Your task to perform on an android device: open sync settings in chrome Image 0: 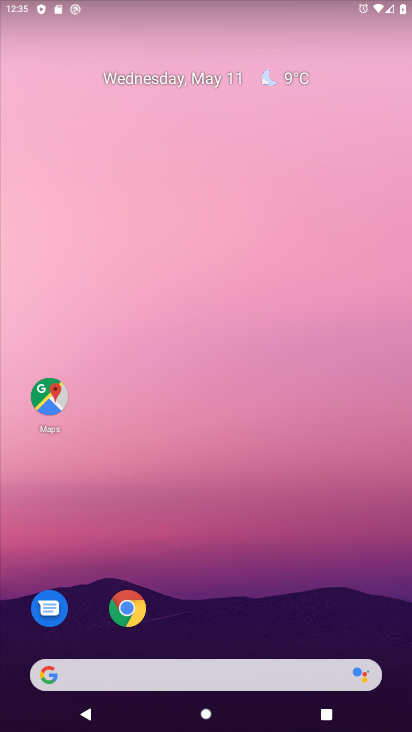
Step 0: drag from (311, 575) to (254, 276)
Your task to perform on an android device: open sync settings in chrome Image 1: 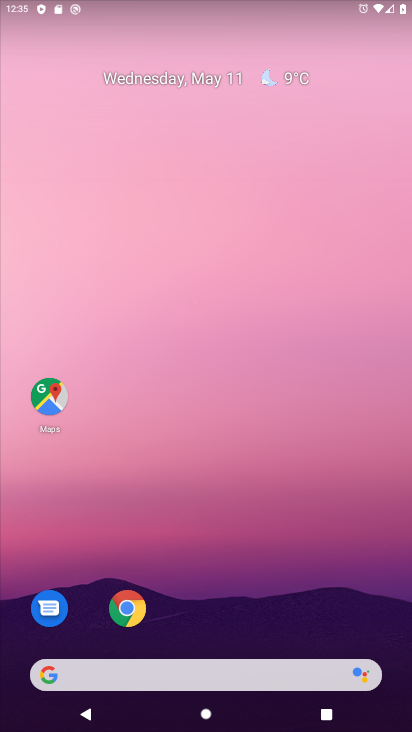
Step 1: drag from (214, 654) to (204, 532)
Your task to perform on an android device: open sync settings in chrome Image 2: 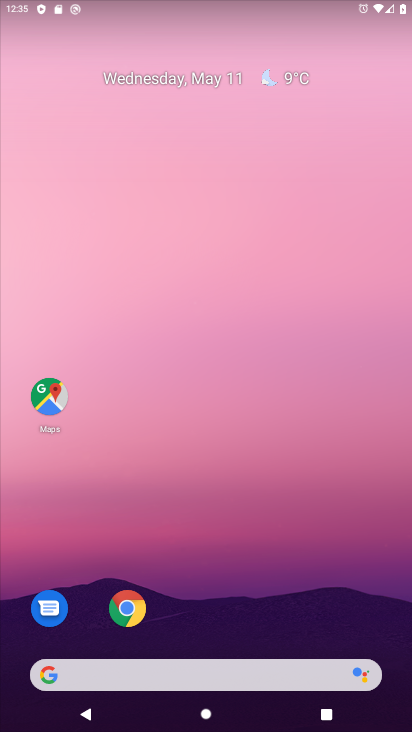
Step 2: drag from (225, 634) to (172, 298)
Your task to perform on an android device: open sync settings in chrome Image 3: 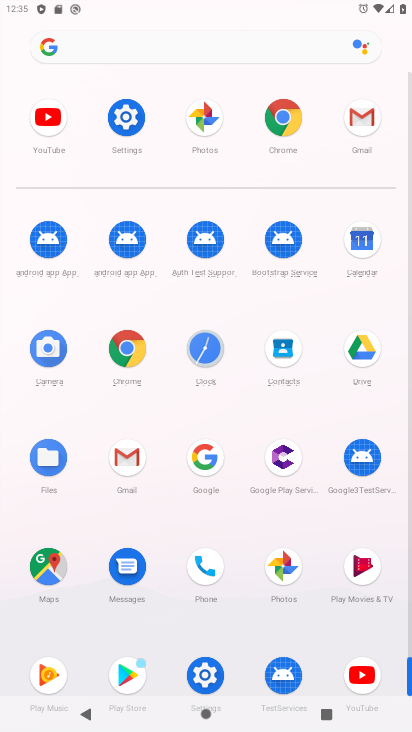
Step 3: click (287, 138)
Your task to perform on an android device: open sync settings in chrome Image 4: 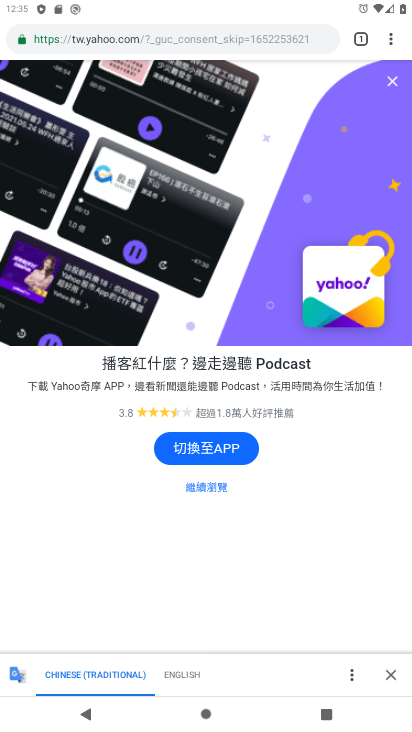
Step 4: click (390, 37)
Your task to perform on an android device: open sync settings in chrome Image 5: 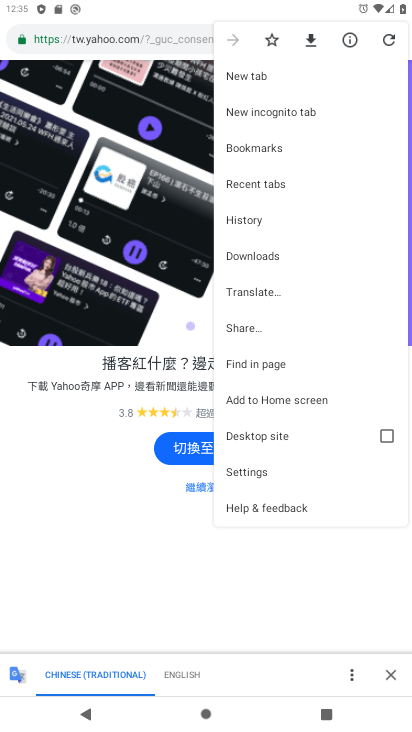
Step 5: click (284, 472)
Your task to perform on an android device: open sync settings in chrome Image 6: 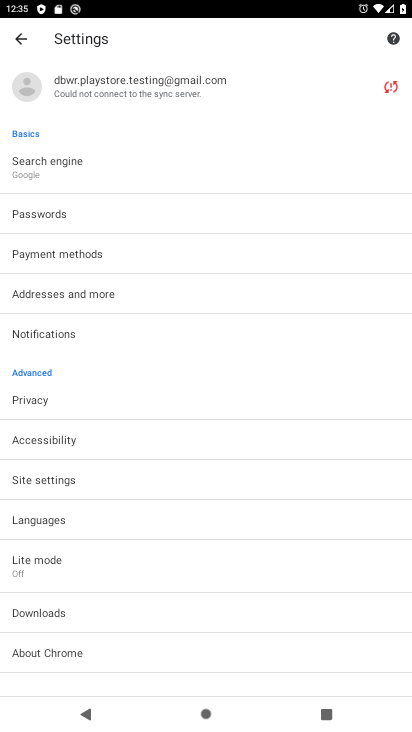
Step 6: click (260, 88)
Your task to perform on an android device: open sync settings in chrome Image 7: 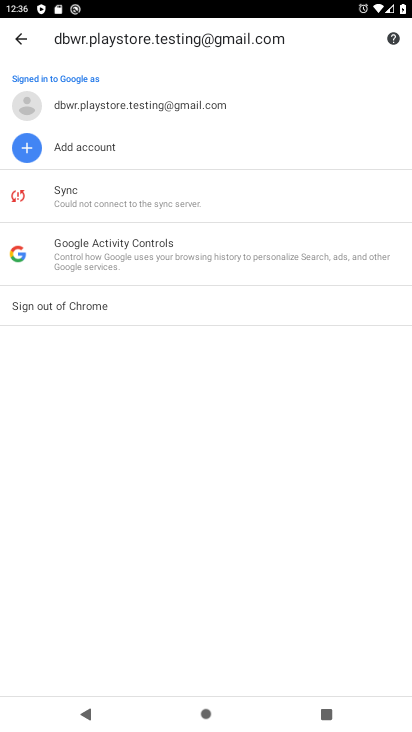
Step 7: click (118, 193)
Your task to perform on an android device: open sync settings in chrome Image 8: 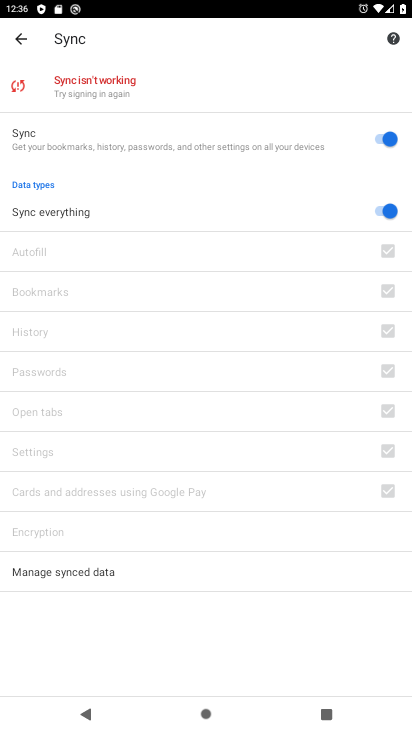
Step 8: task complete